Your task to perform on an android device: open app "PlayWell" Image 0: 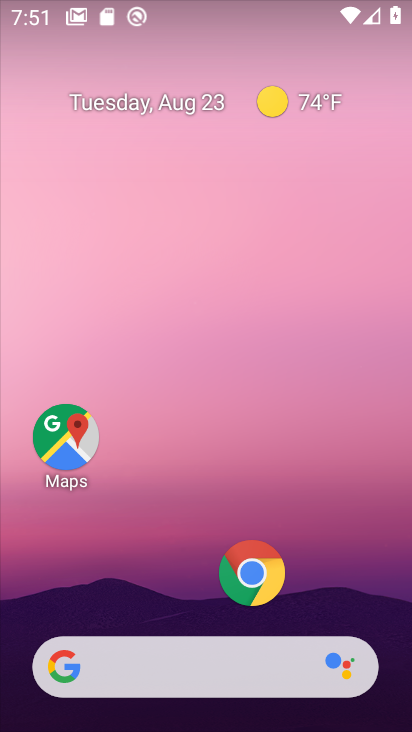
Step 0: drag from (189, 588) to (174, 8)
Your task to perform on an android device: open app "PlayWell" Image 1: 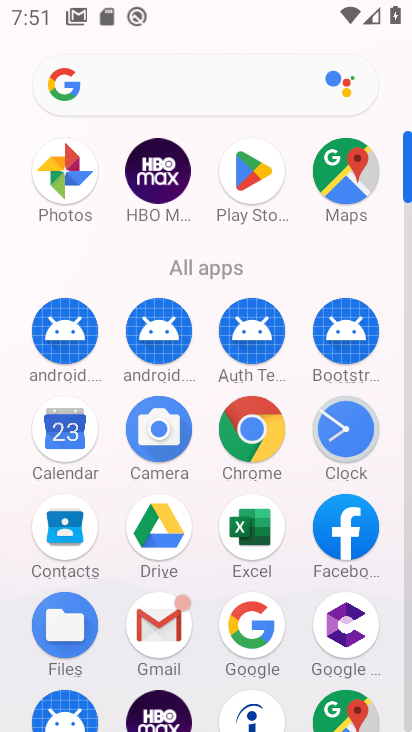
Step 1: click (246, 182)
Your task to perform on an android device: open app "PlayWell" Image 2: 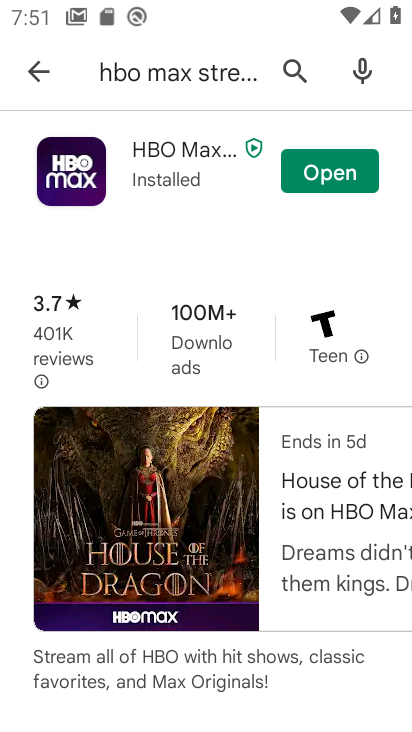
Step 2: click (46, 68)
Your task to perform on an android device: open app "PlayWell" Image 3: 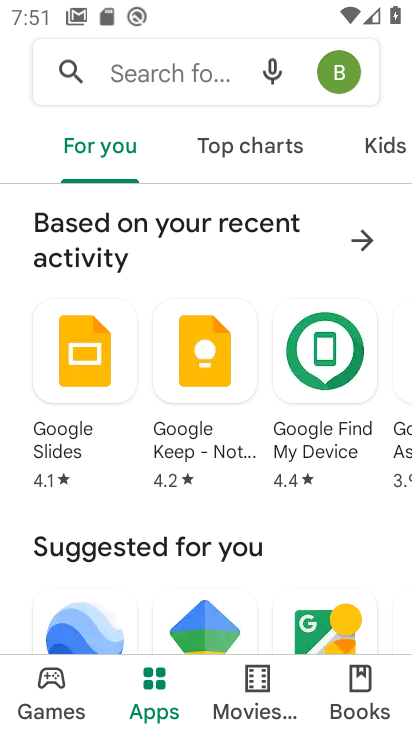
Step 3: click (135, 68)
Your task to perform on an android device: open app "PlayWell" Image 4: 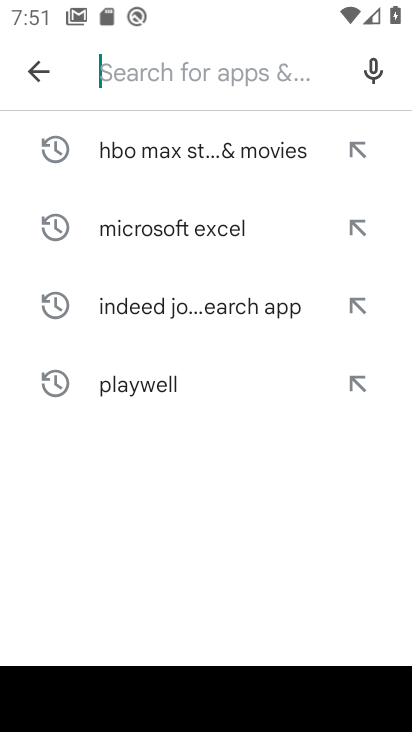
Step 4: type "PlayWell"
Your task to perform on an android device: open app "PlayWell" Image 5: 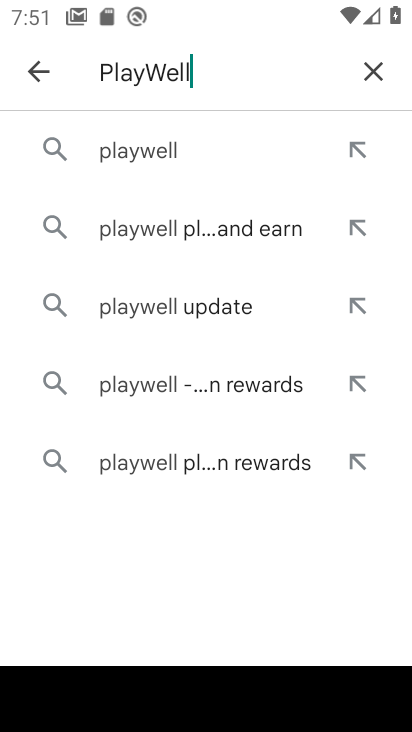
Step 5: click (141, 153)
Your task to perform on an android device: open app "PlayWell" Image 6: 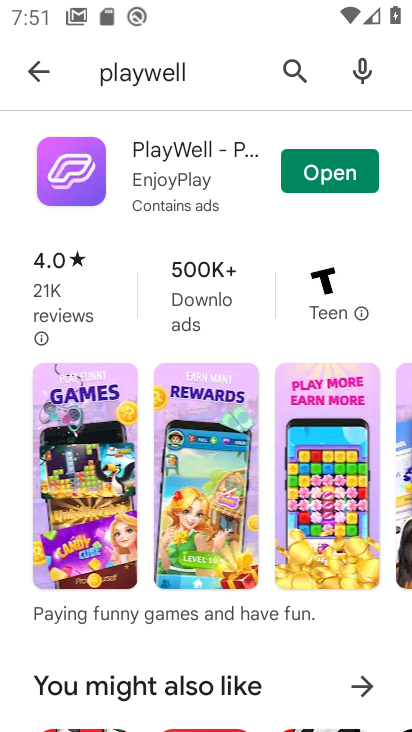
Step 6: click (308, 177)
Your task to perform on an android device: open app "PlayWell" Image 7: 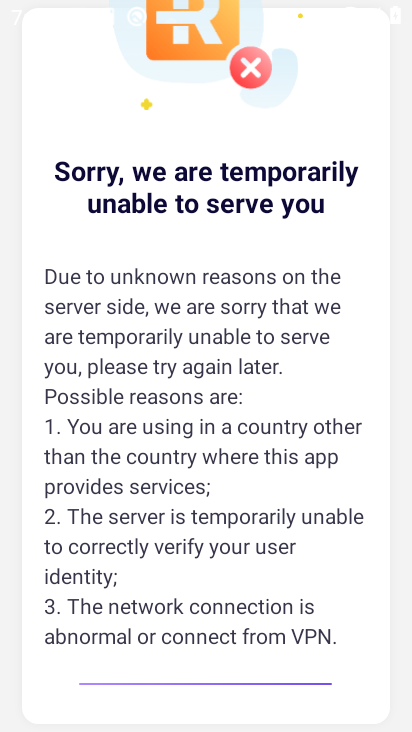
Step 7: task complete